Your task to perform on an android device: show emergency info Image 0: 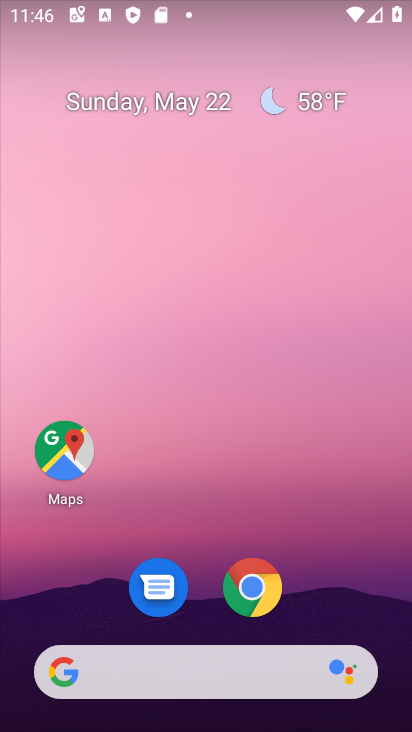
Step 0: drag from (236, 516) to (239, 40)
Your task to perform on an android device: show emergency info Image 1: 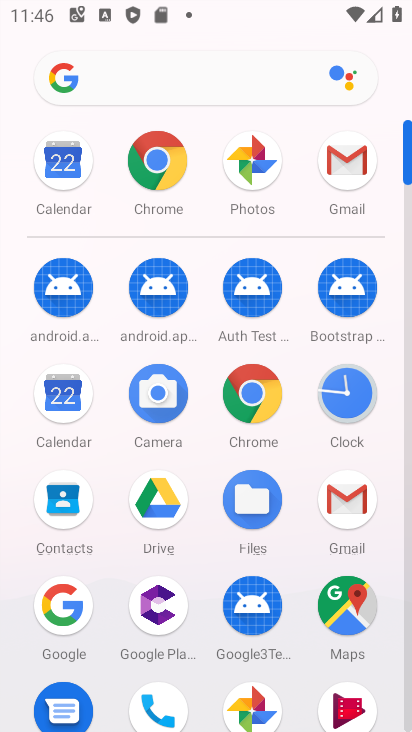
Step 1: drag from (197, 463) to (194, 154)
Your task to perform on an android device: show emergency info Image 2: 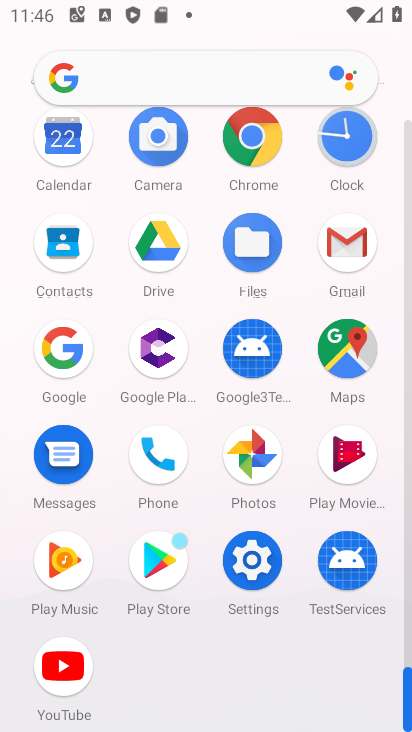
Step 2: click (241, 553)
Your task to perform on an android device: show emergency info Image 3: 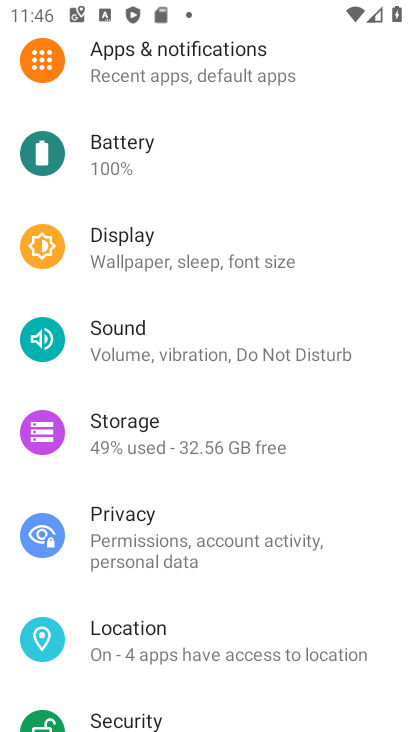
Step 3: drag from (236, 567) to (202, 118)
Your task to perform on an android device: show emergency info Image 4: 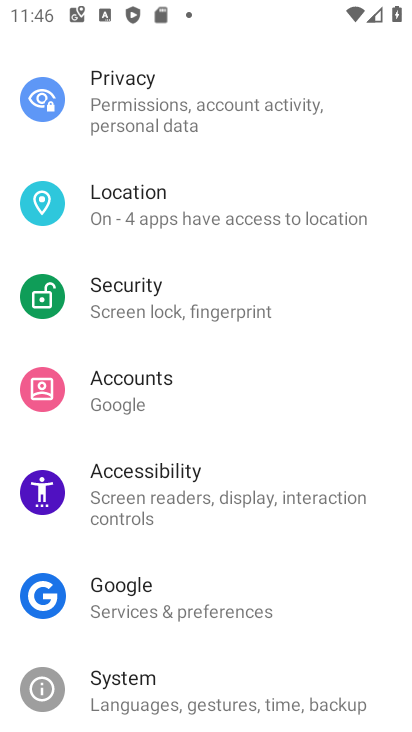
Step 4: drag from (240, 390) to (232, 86)
Your task to perform on an android device: show emergency info Image 5: 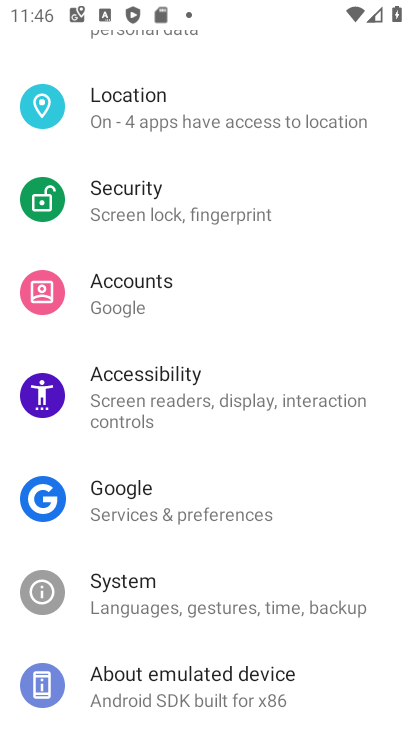
Step 5: click (223, 680)
Your task to perform on an android device: show emergency info Image 6: 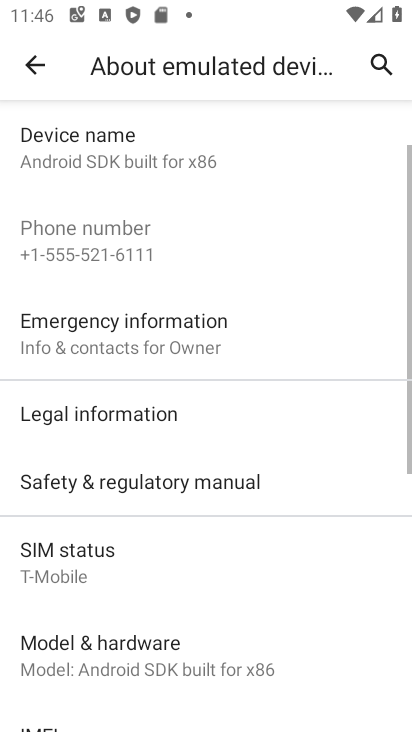
Step 6: click (182, 325)
Your task to perform on an android device: show emergency info Image 7: 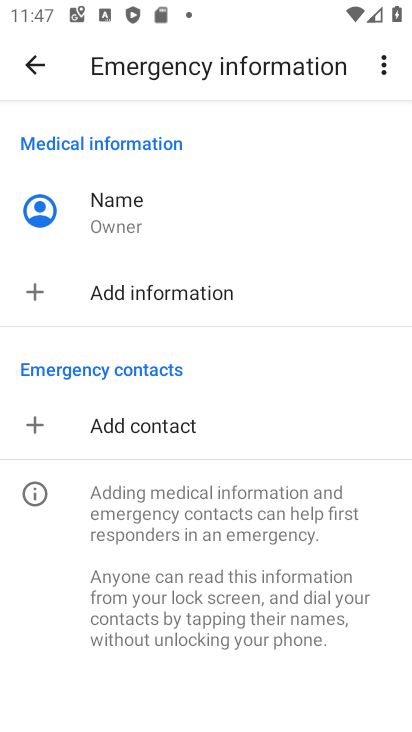
Step 7: task complete